Your task to perform on an android device: Open the phone app and click the voicemail tab. Image 0: 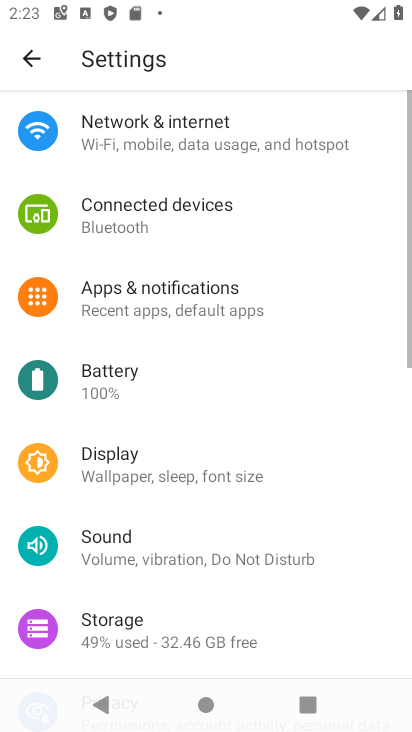
Step 0: press home button
Your task to perform on an android device: Open the phone app and click the voicemail tab. Image 1: 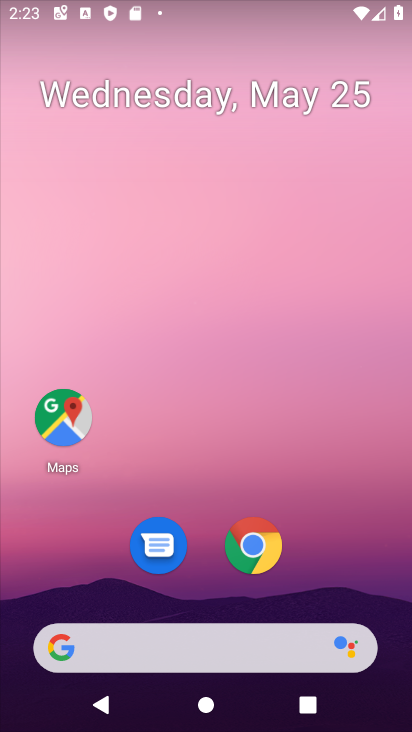
Step 1: drag from (389, 568) to (284, 159)
Your task to perform on an android device: Open the phone app and click the voicemail tab. Image 2: 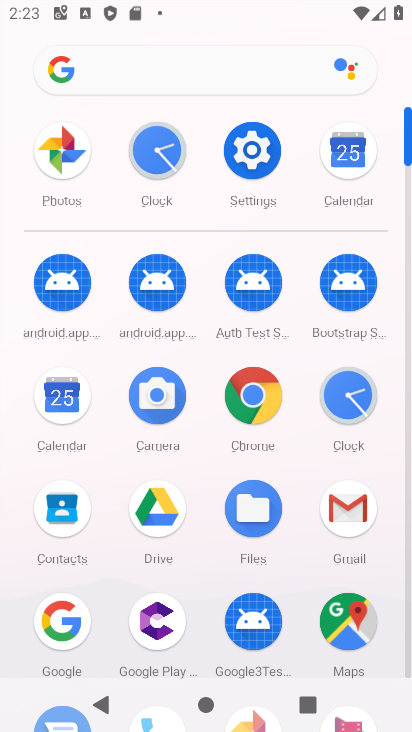
Step 2: click (408, 668)
Your task to perform on an android device: Open the phone app and click the voicemail tab. Image 3: 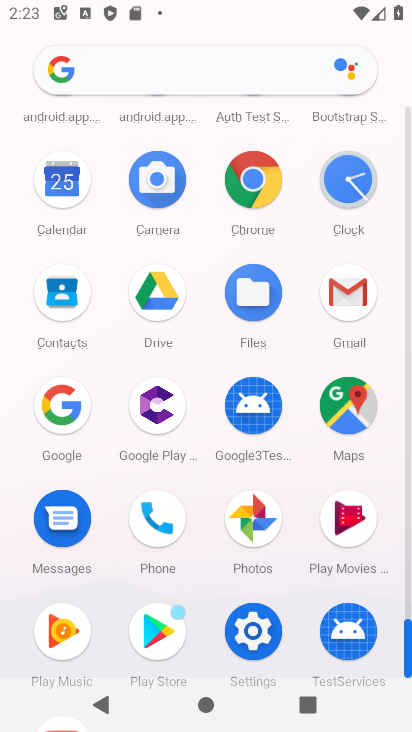
Step 3: click (152, 510)
Your task to perform on an android device: Open the phone app and click the voicemail tab. Image 4: 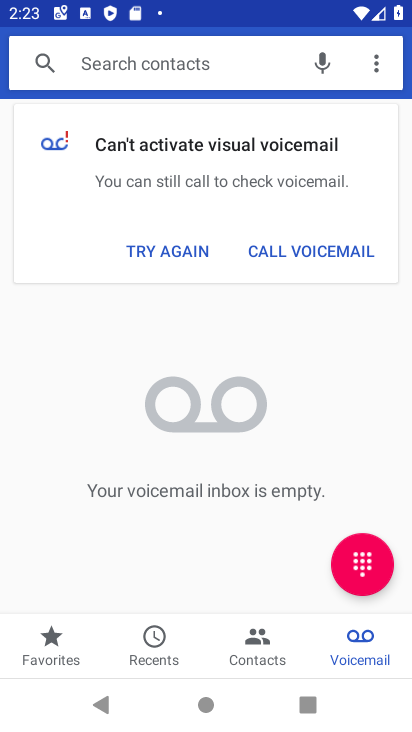
Step 4: task complete